Your task to perform on an android device: set default search engine in the chrome app Image 0: 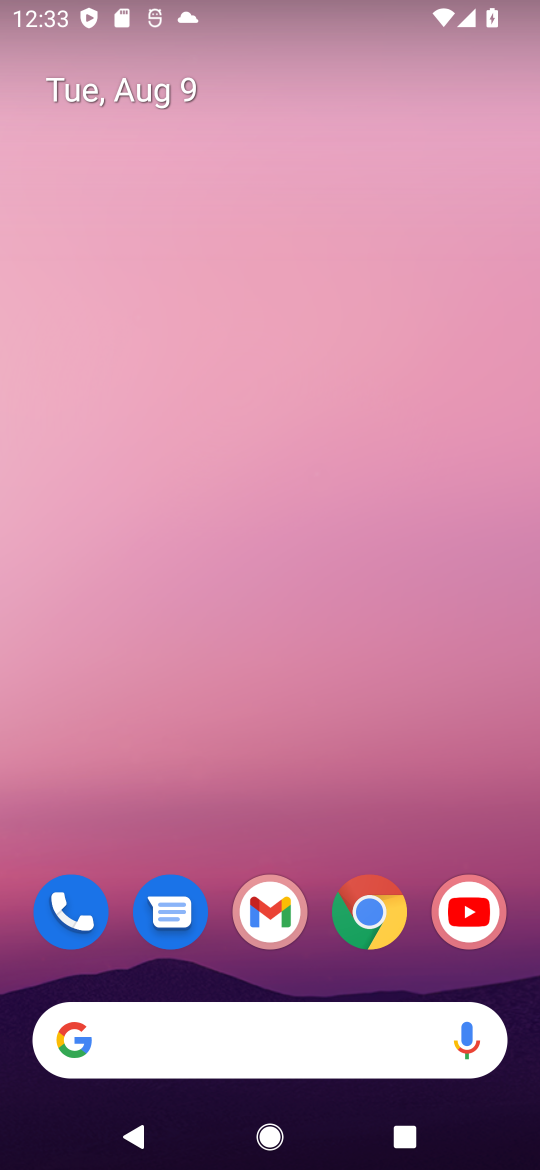
Step 0: drag from (269, 1015) to (295, 366)
Your task to perform on an android device: set default search engine in the chrome app Image 1: 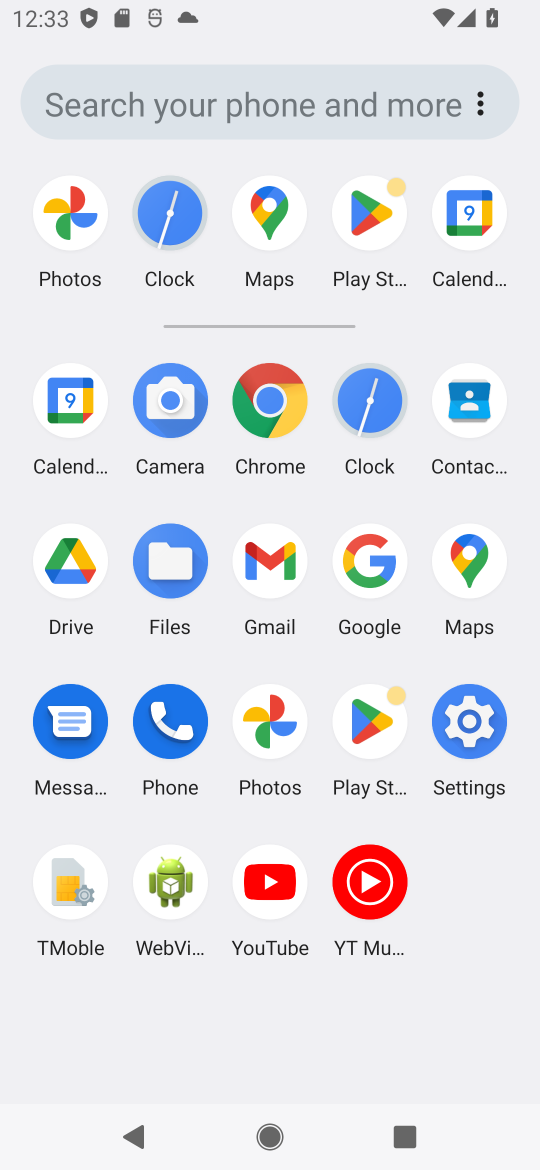
Step 1: click (260, 407)
Your task to perform on an android device: set default search engine in the chrome app Image 2: 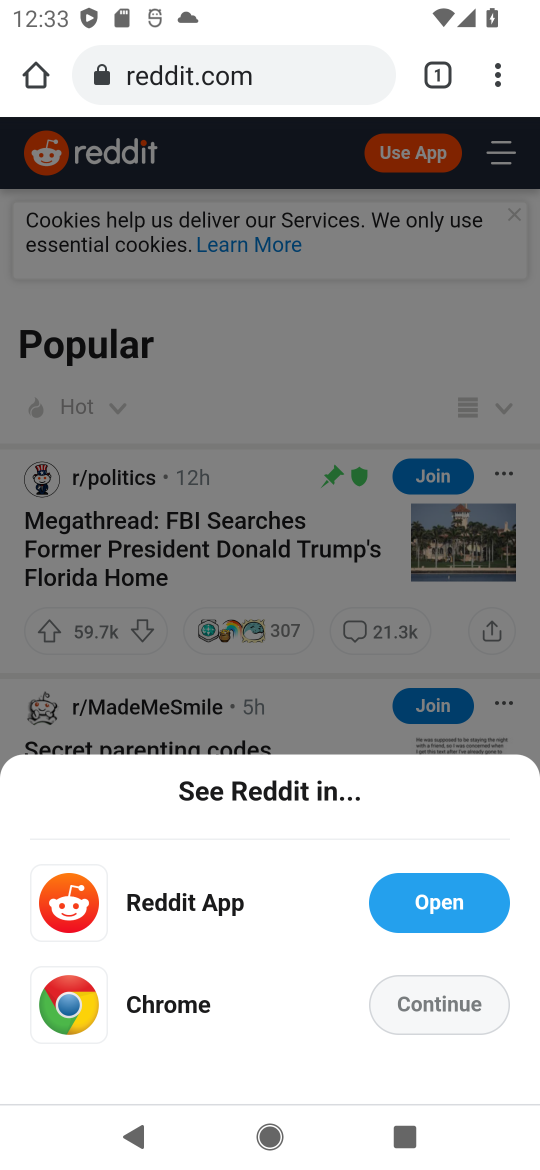
Step 2: click (492, 75)
Your task to perform on an android device: set default search engine in the chrome app Image 3: 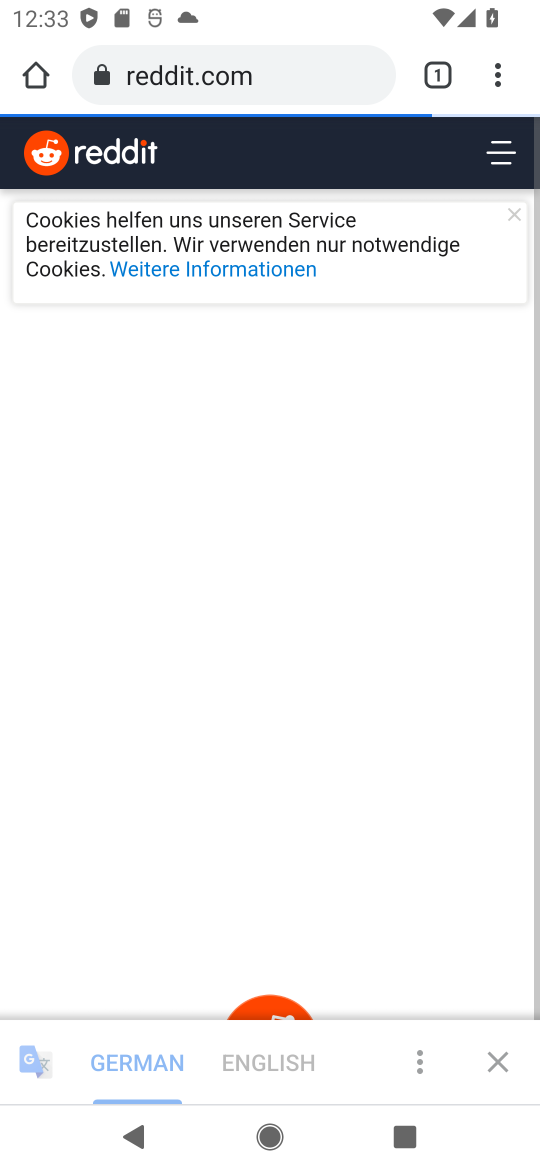
Step 3: click (502, 81)
Your task to perform on an android device: set default search engine in the chrome app Image 4: 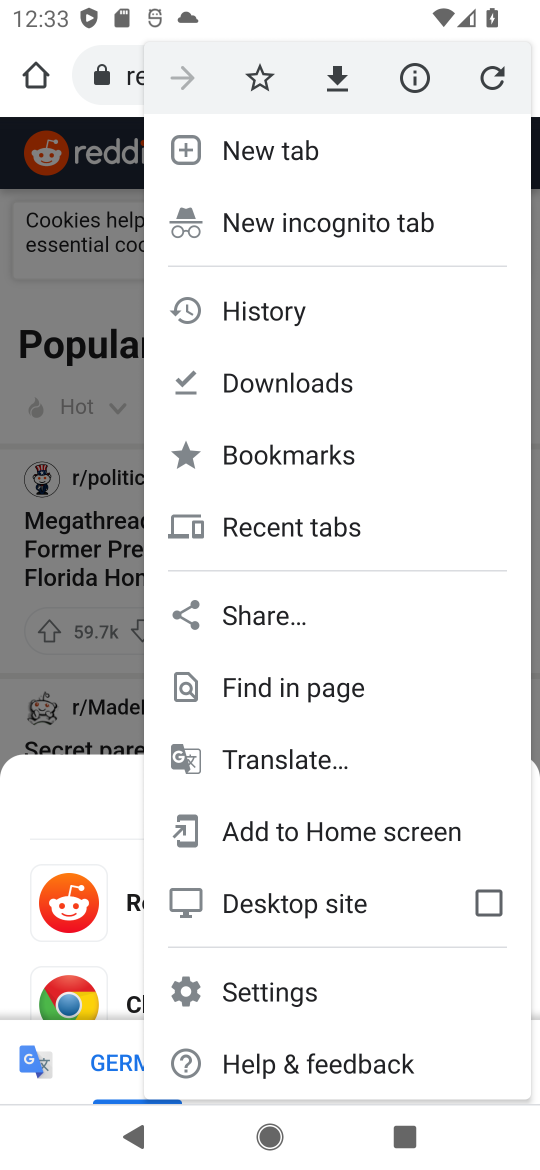
Step 4: click (287, 992)
Your task to perform on an android device: set default search engine in the chrome app Image 5: 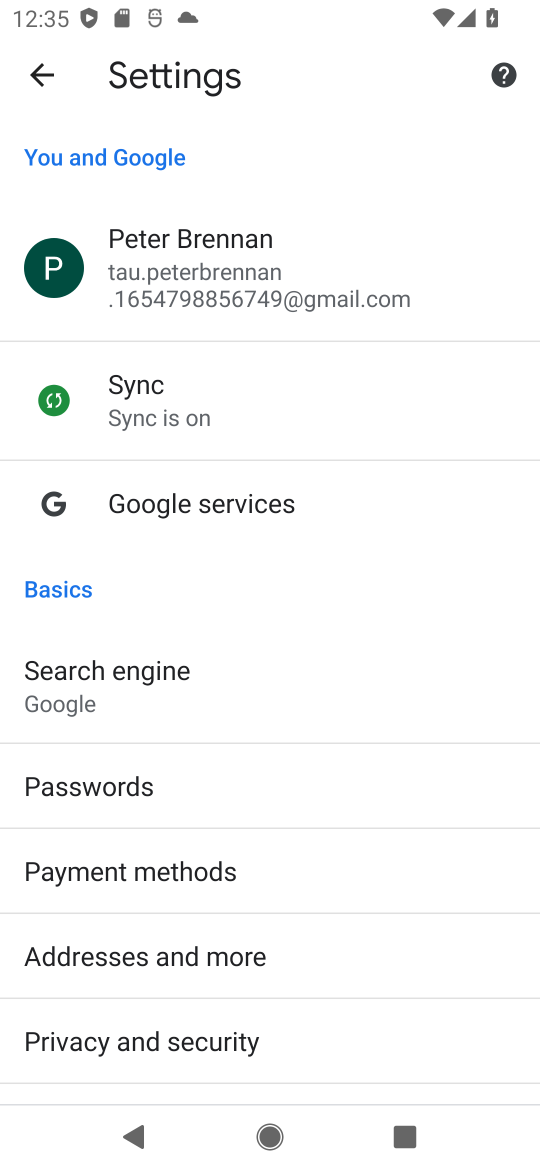
Step 5: drag from (180, 1061) to (213, 561)
Your task to perform on an android device: set default search engine in the chrome app Image 6: 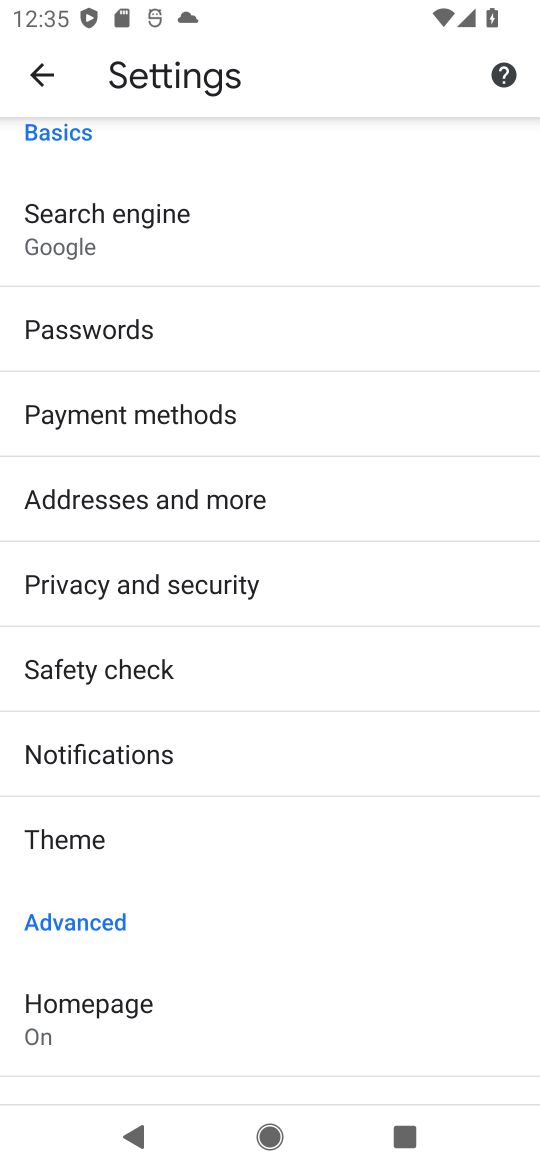
Step 6: drag from (174, 176) to (174, 345)
Your task to perform on an android device: set default search engine in the chrome app Image 7: 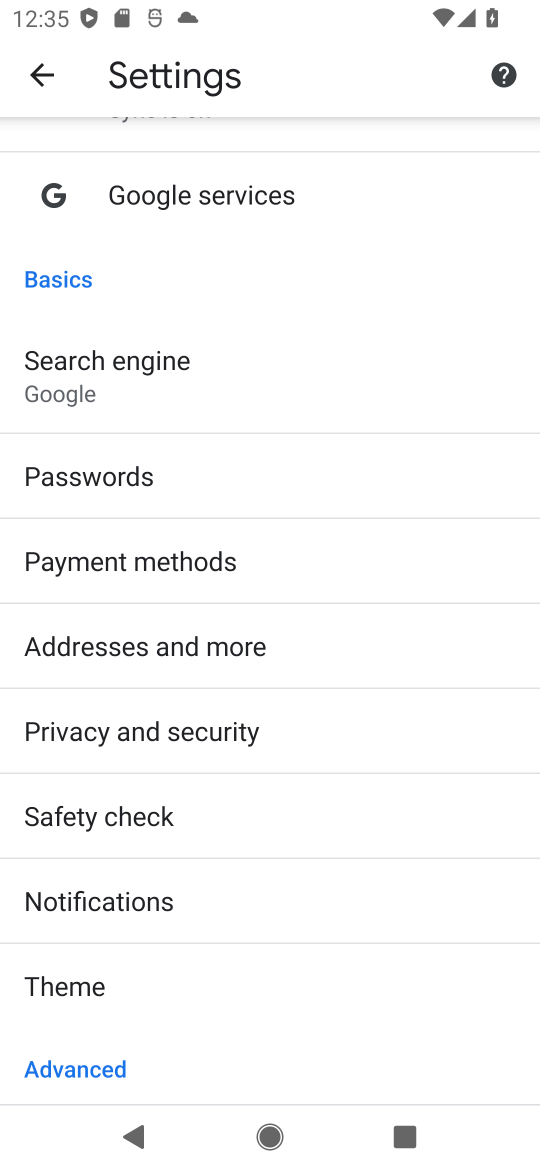
Step 7: click (125, 368)
Your task to perform on an android device: set default search engine in the chrome app Image 8: 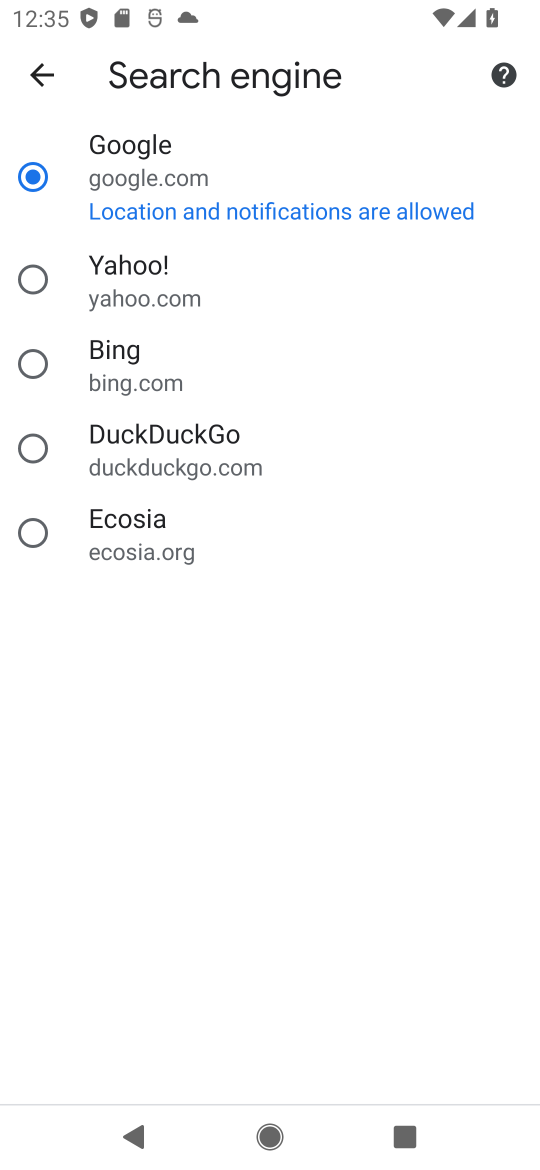
Step 8: task complete